Your task to perform on an android device: Is it going to rain this weekend? Image 0: 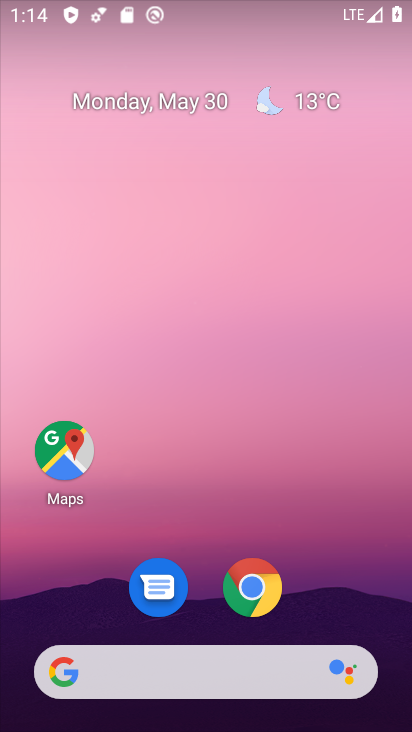
Step 0: click (308, 106)
Your task to perform on an android device: Is it going to rain this weekend? Image 1: 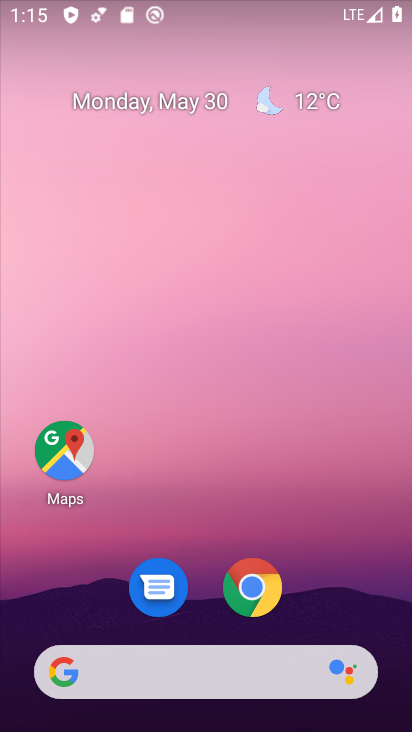
Step 1: click (308, 106)
Your task to perform on an android device: Is it going to rain this weekend? Image 2: 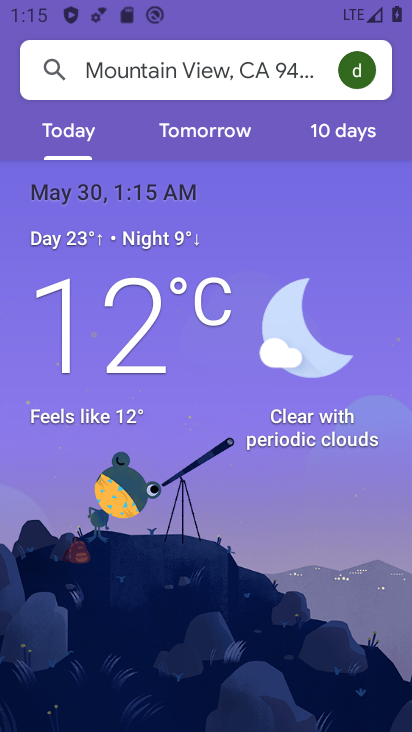
Step 2: click (351, 128)
Your task to perform on an android device: Is it going to rain this weekend? Image 3: 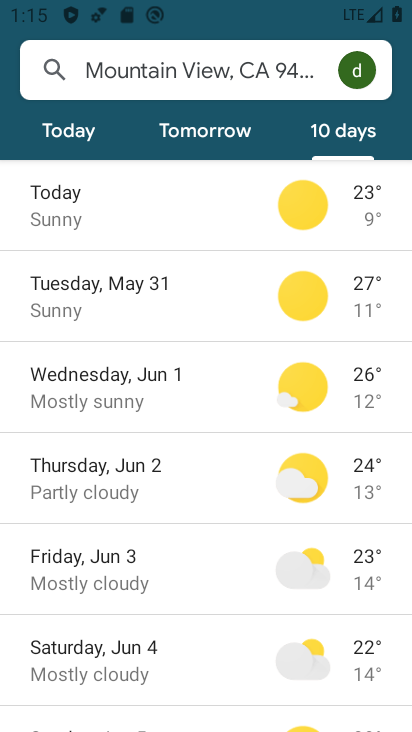
Step 3: task complete